Your task to perform on an android device: Go to Android settings Image 0: 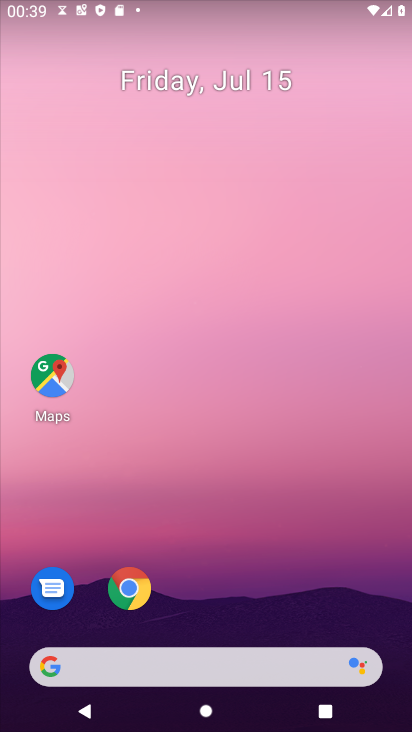
Step 0: drag from (179, 577) to (304, 20)
Your task to perform on an android device: Go to Android settings Image 1: 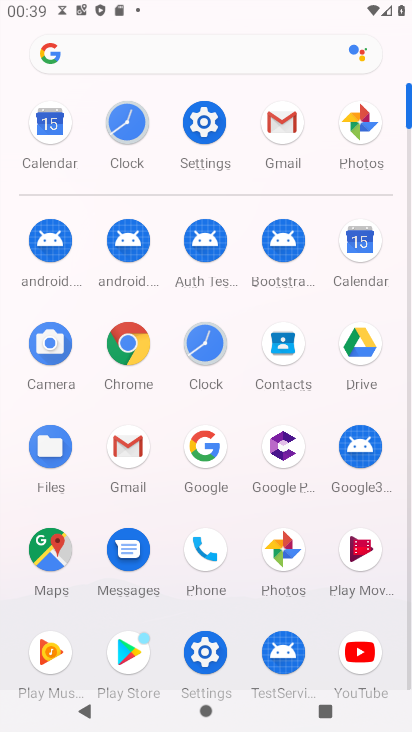
Step 1: click (222, 114)
Your task to perform on an android device: Go to Android settings Image 2: 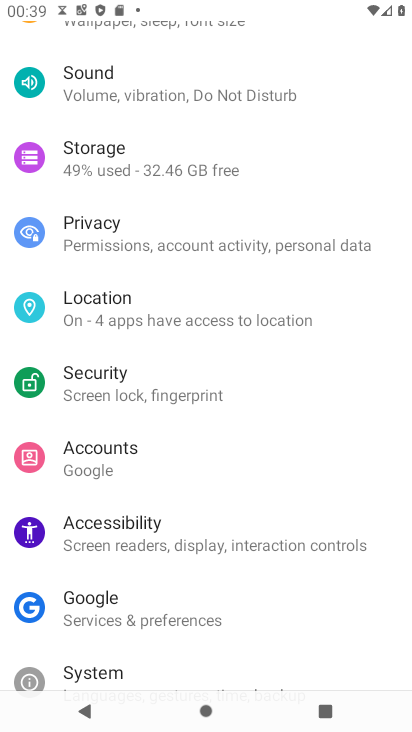
Step 2: drag from (222, 128) to (275, 16)
Your task to perform on an android device: Go to Android settings Image 3: 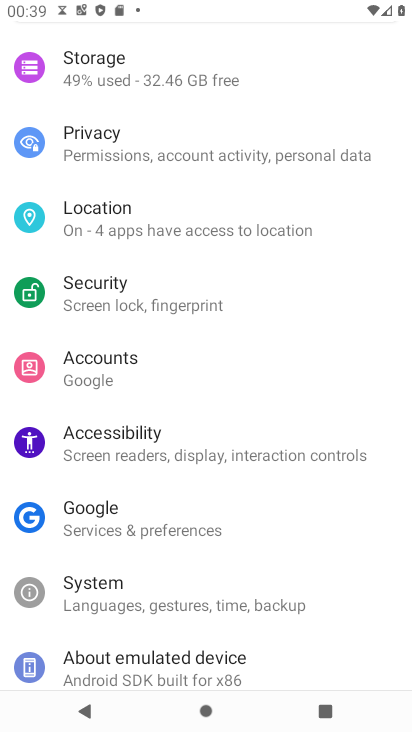
Step 3: drag from (180, 618) to (288, 43)
Your task to perform on an android device: Go to Android settings Image 4: 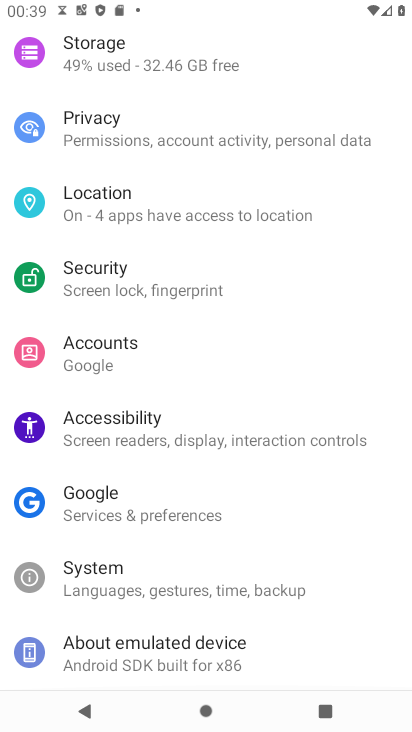
Step 4: click (132, 664)
Your task to perform on an android device: Go to Android settings Image 5: 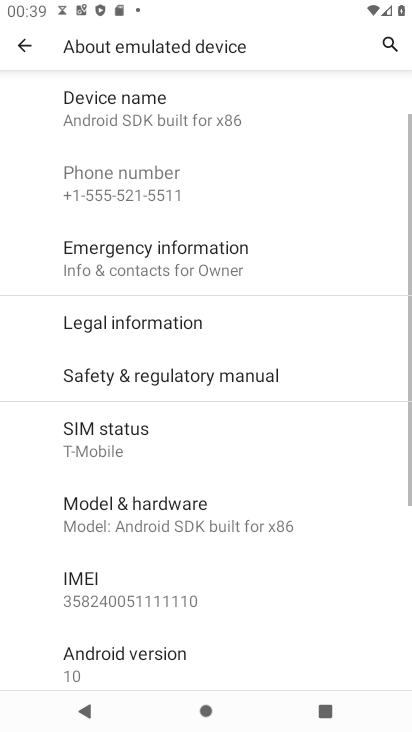
Step 5: click (140, 655)
Your task to perform on an android device: Go to Android settings Image 6: 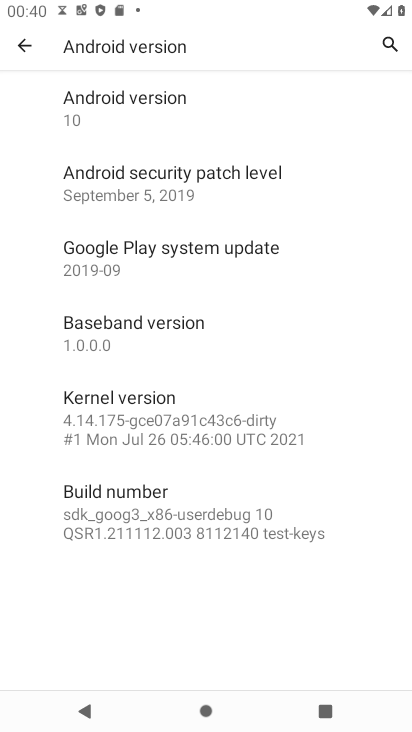
Step 6: task complete